Your task to perform on an android device: install app "TextNow: Call + Text Unlimited" Image 0: 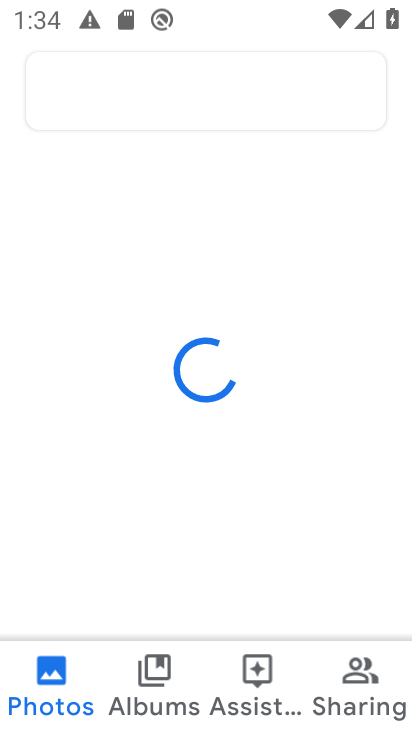
Step 0: press home button
Your task to perform on an android device: install app "TextNow: Call + Text Unlimited" Image 1: 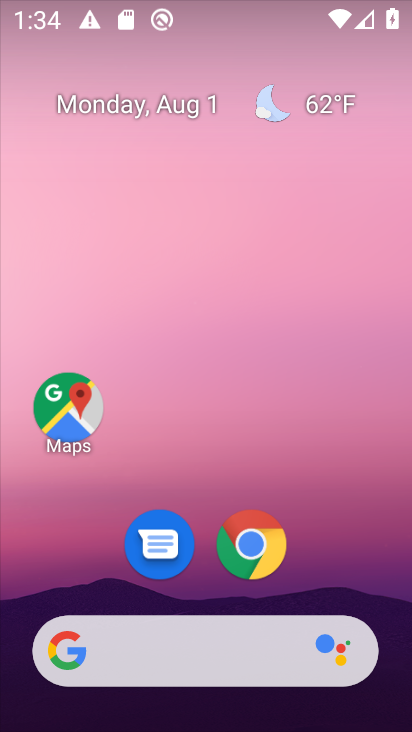
Step 1: drag from (394, 628) to (163, 18)
Your task to perform on an android device: install app "TextNow: Call + Text Unlimited" Image 2: 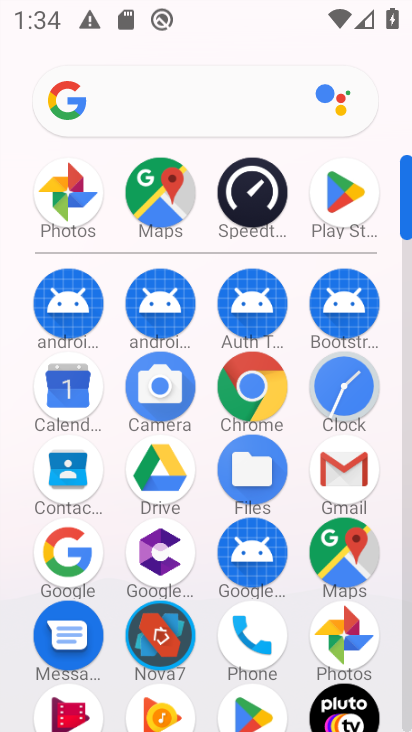
Step 2: click (358, 232)
Your task to perform on an android device: install app "TextNow: Call + Text Unlimited" Image 3: 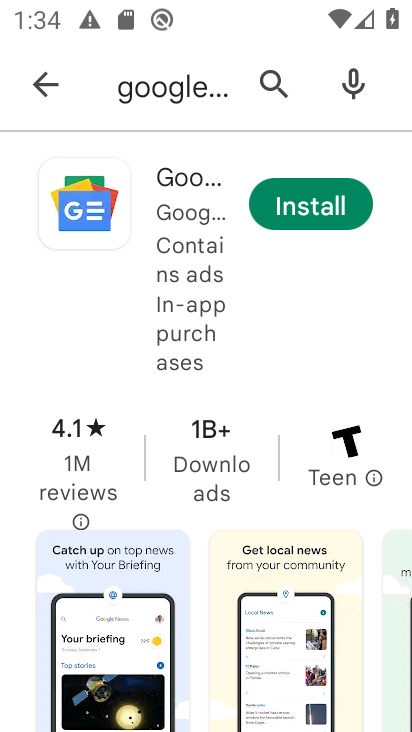
Step 3: press back button
Your task to perform on an android device: install app "TextNow: Call + Text Unlimited" Image 4: 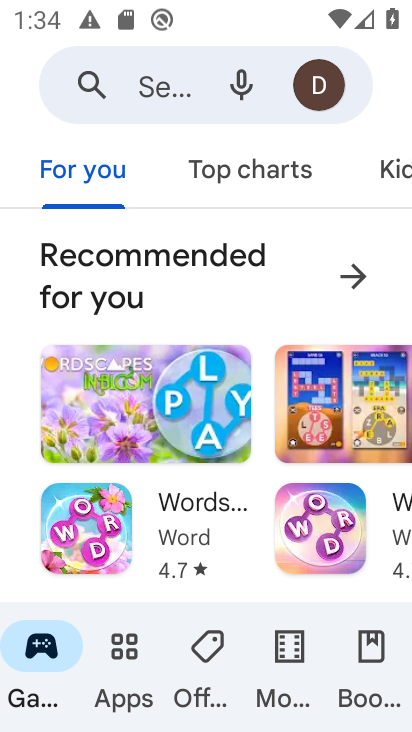
Step 4: click (147, 88)
Your task to perform on an android device: install app "TextNow: Call + Text Unlimited" Image 5: 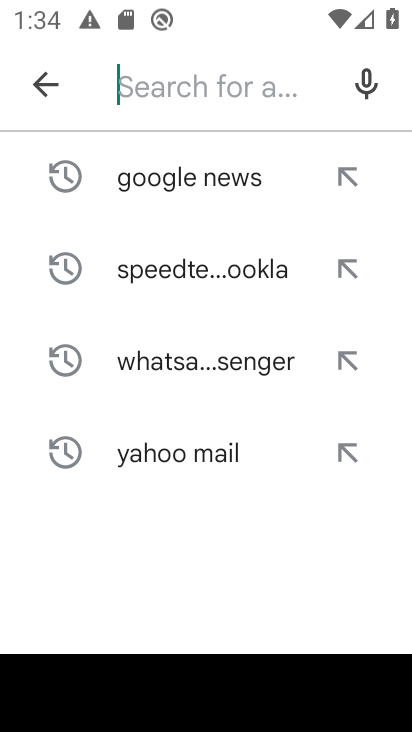
Step 5: type "TextNow: Call + Text Unlimited"
Your task to perform on an android device: install app "TextNow: Call + Text Unlimited" Image 6: 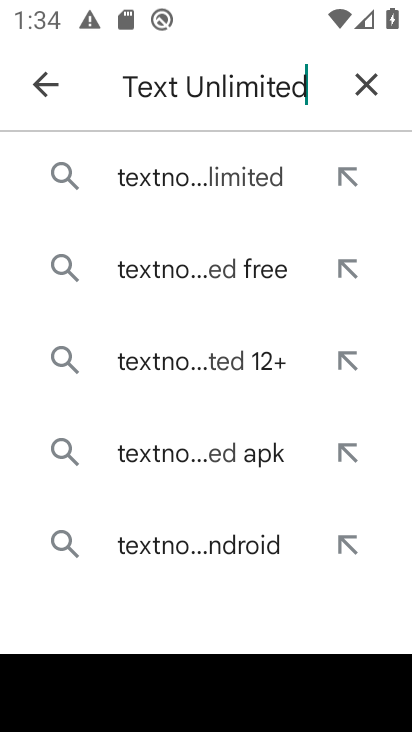
Step 6: click (135, 188)
Your task to perform on an android device: install app "TextNow: Call + Text Unlimited" Image 7: 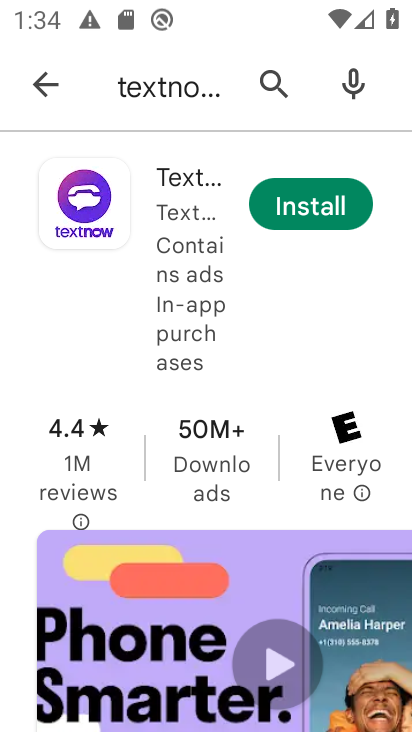
Step 7: click (320, 208)
Your task to perform on an android device: install app "TextNow: Call + Text Unlimited" Image 8: 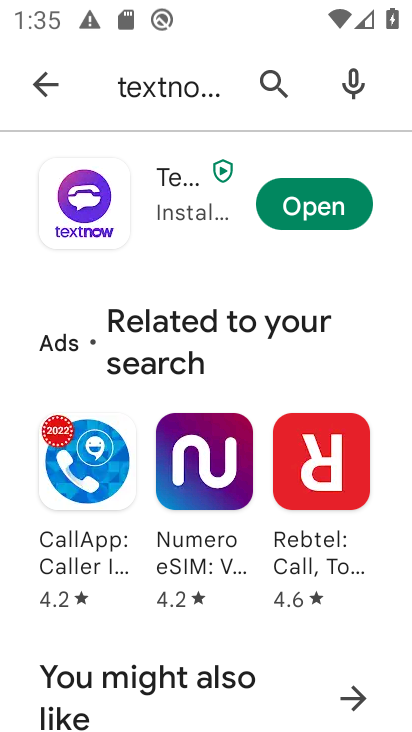
Step 8: task complete